Your task to perform on an android device: change text size in settings app Image 0: 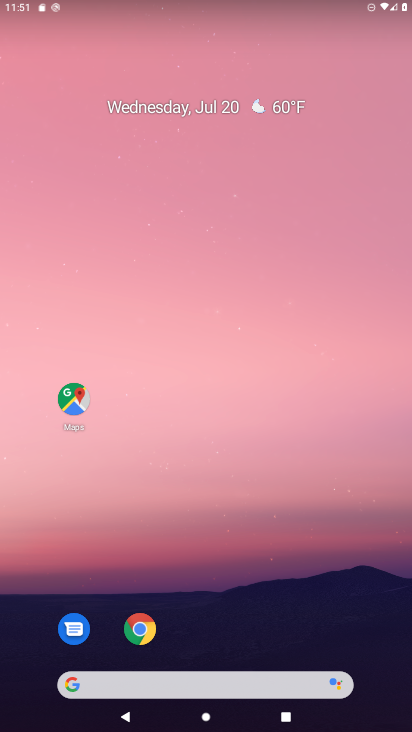
Step 0: drag from (213, 624) to (223, 157)
Your task to perform on an android device: change text size in settings app Image 1: 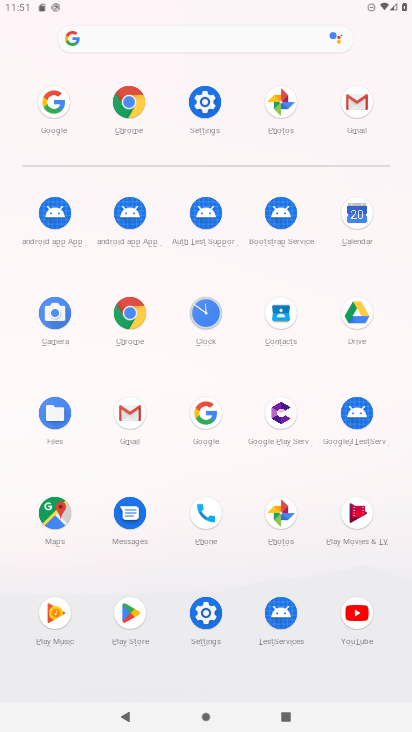
Step 1: click (211, 101)
Your task to perform on an android device: change text size in settings app Image 2: 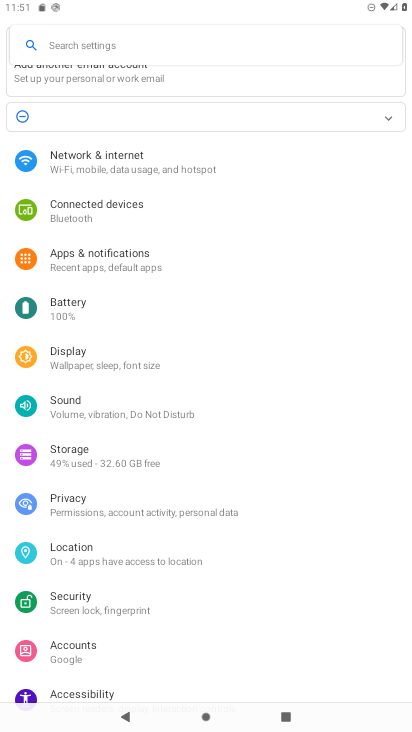
Step 2: click (109, 375)
Your task to perform on an android device: change text size in settings app Image 3: 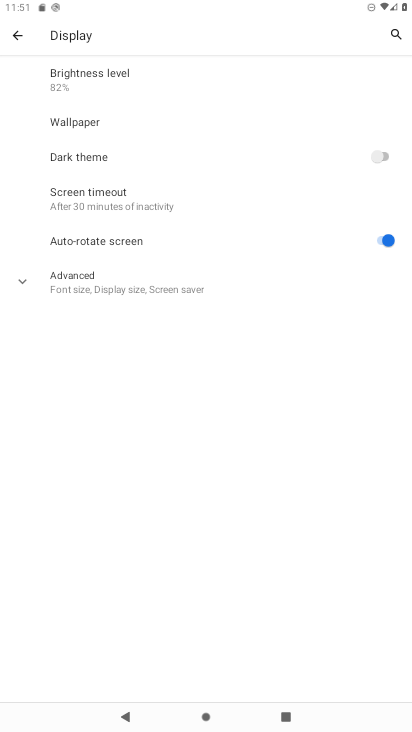
Step 3: click (81, 292)
Your task to perform on an android device: change text size in settings app Image 4: 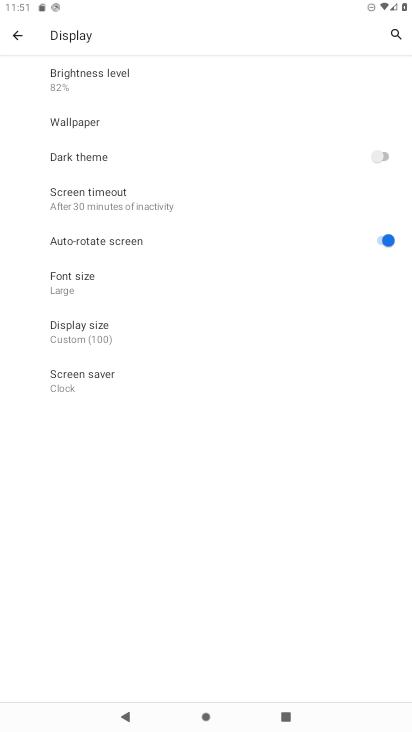
Step 4: click (104, 287)
Your task to perform on an android device: change text size in settings app Image 5: 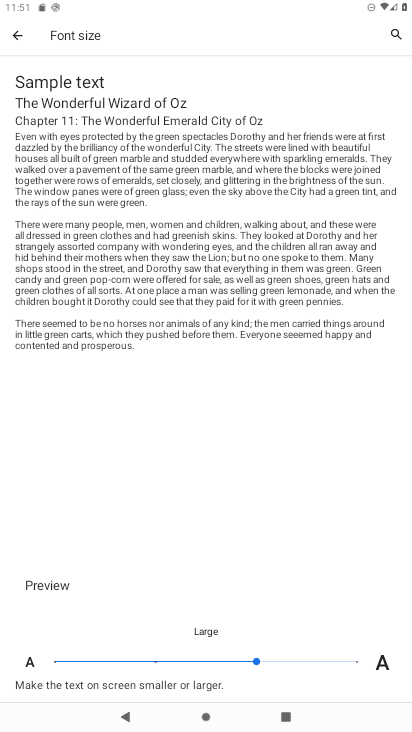
Step 5: click (355, 652)
Your task to perform on an android device: change text size in settings app Image 6: 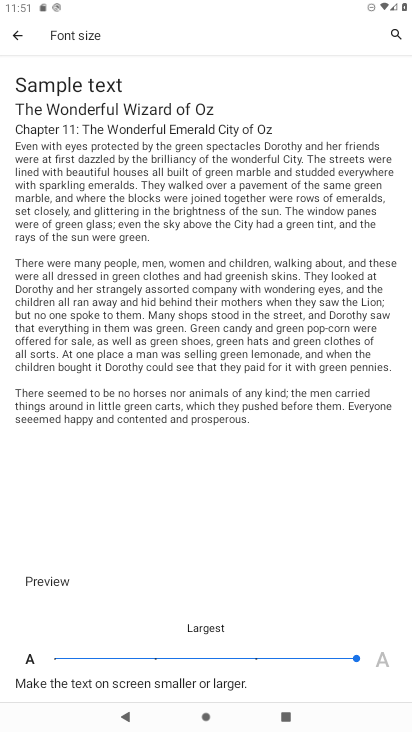
Step 6: task complete